Your task to perform on an android device: Search for sushi restaurants on Maps Image 0: 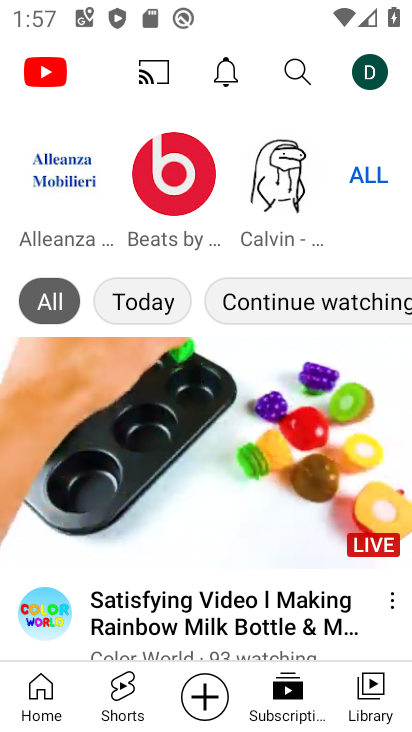
Step 0: press home button
Your task to perform on an android device: Search for sushi restaurants on Maps Image 1: 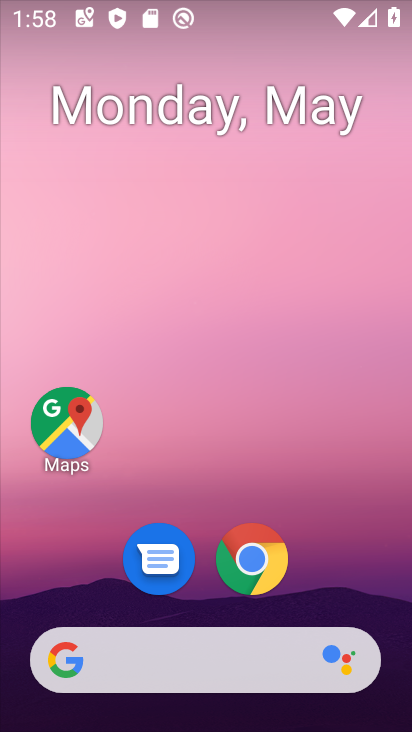
Step 1: click (49, 417)
Your task to perform on an android device: Search for sushi restaurants on Maps Image 2: 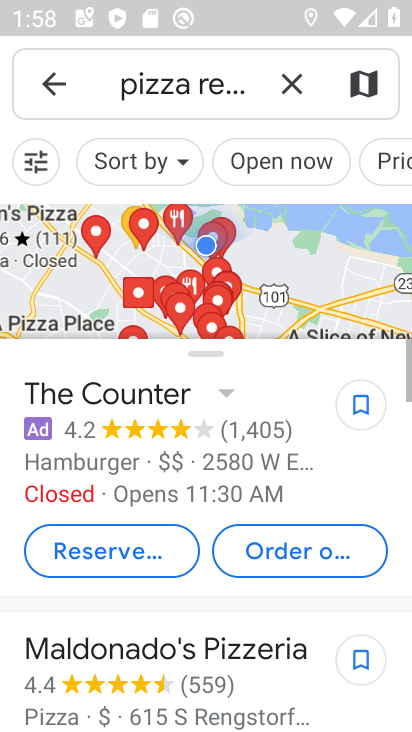
Step 2: click (302, 87)
Your task to perform on an android device: Search for sushi restaurants on Maps Image 3: 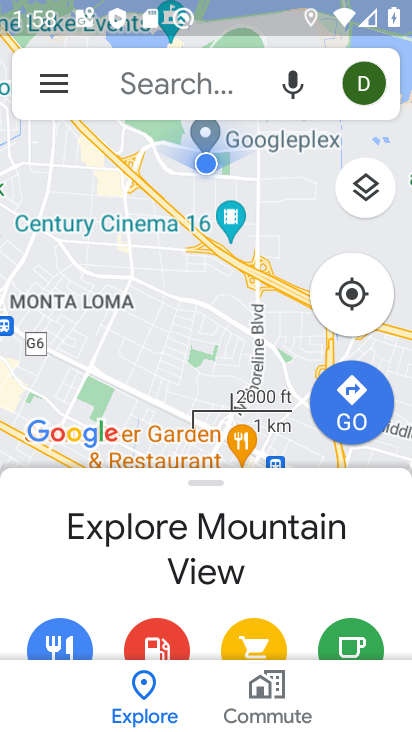
Step 3: click (205, 93)
Your task to perform on an android device: Search for sushi restaurants on Maps Image 4: 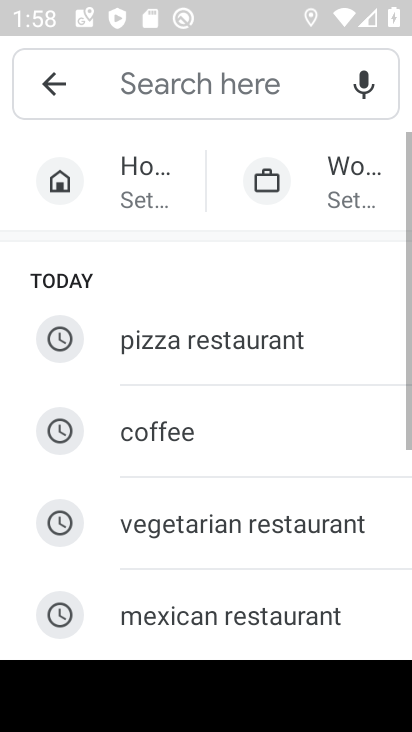
Step 4: drag from (208, 623) to (232, 171)
Your task to perform on an android device: Search for sushi restaurants on Maps Image 5: 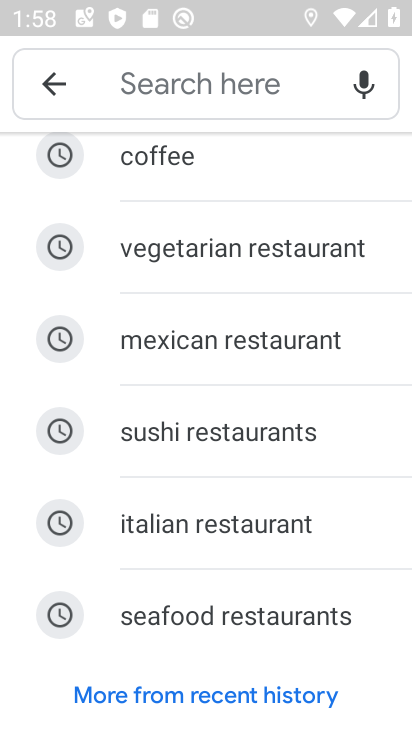
Step 5: click (249, 416)
Your task to perform on an android device: Search for sushi restaurants on Maps Image 6: 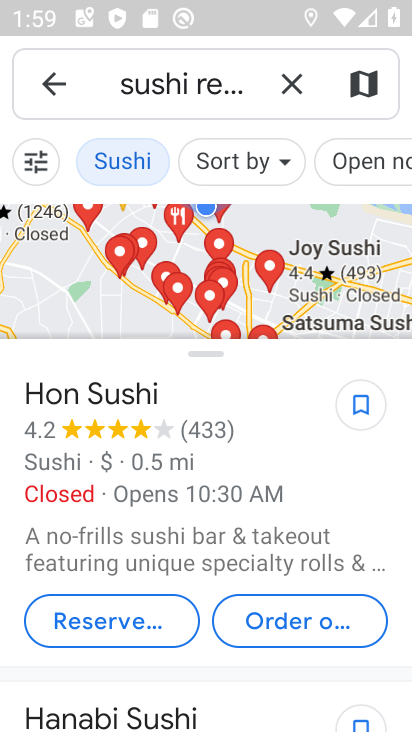
Step 6: task complete